Your task to perform on an android device: Do I have any events today? Image 0: 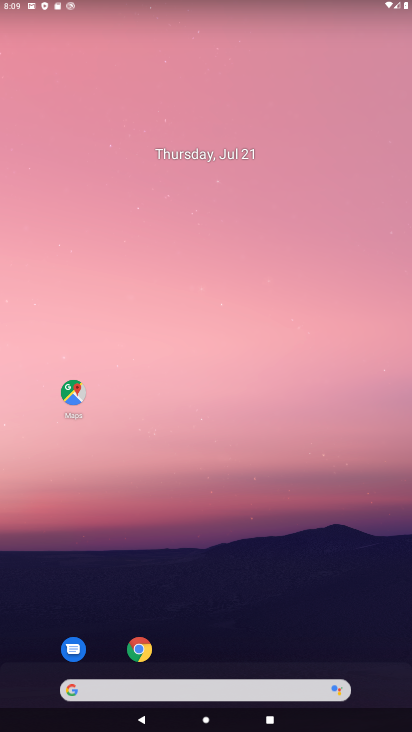
Step 0: click (182, 157)
Your task to perform on an android device: Do I have any events today? Image 1: 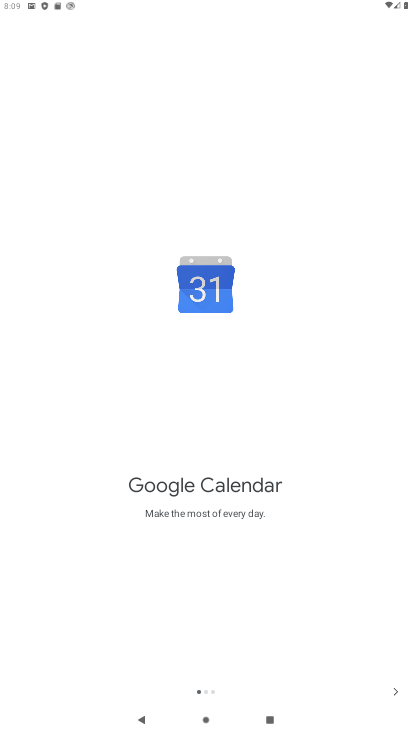
Step 1: click (394, 690)
Your task to perform on an android device: Do I have any events today? Image 2: 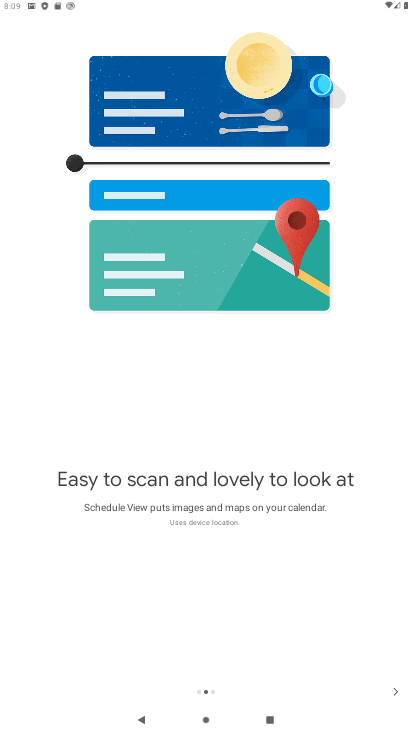
Step 2: click (394, 690)
Your task to perform on an android device: Do I have any events today? Image 3: 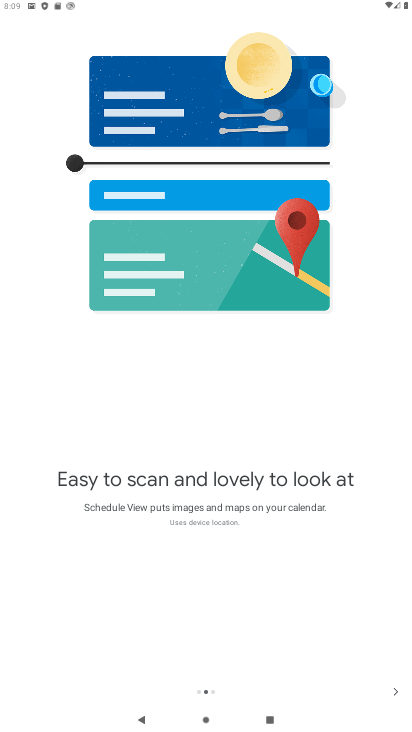
Step 3: click (394, 690)
Your task to perform on an android device: Do I have any events today? Image 4: 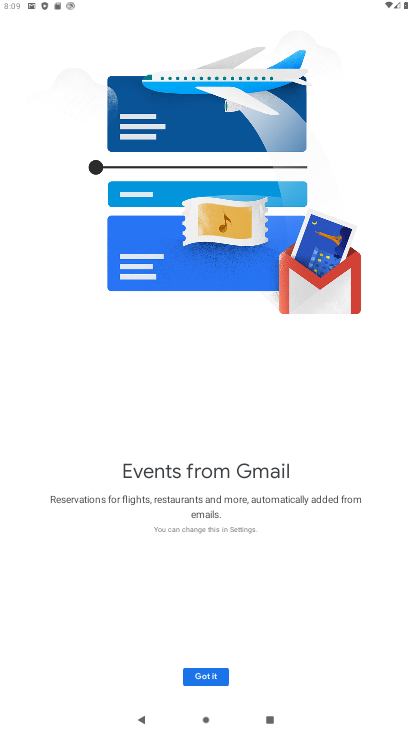
Step 4: click (189, 681)
Your task to perform on an android device: Do I have any events today? Image 5: 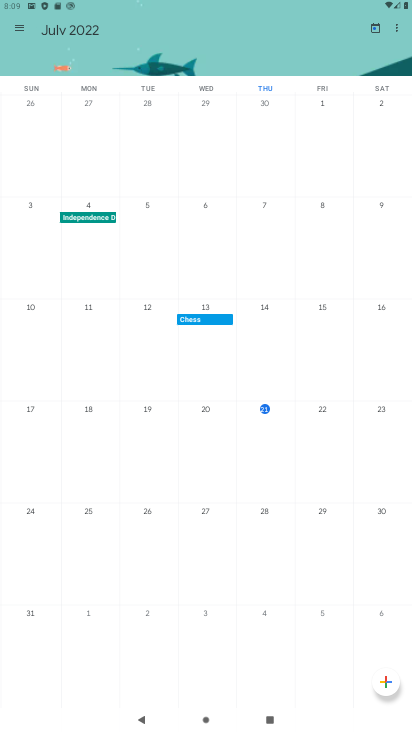
Step 5: click (11, 26)
Your task to perform on an android device: Do I have any events today? Image 6: 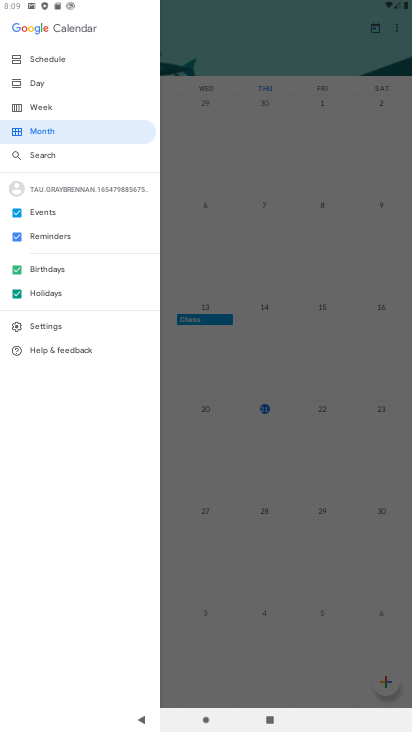
Step 6: click (14, 240)
Your task to perform on an android device: Do I have any events today? Image 7: 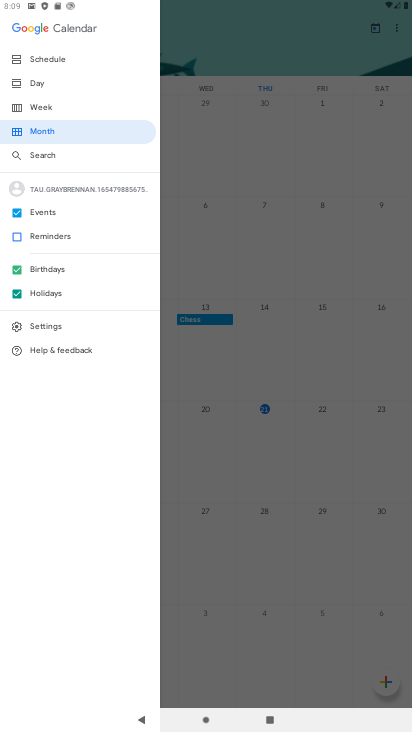
Step 7: click (14, 268)
Your task to perform on an android device: Do I have any events today? Image 8: 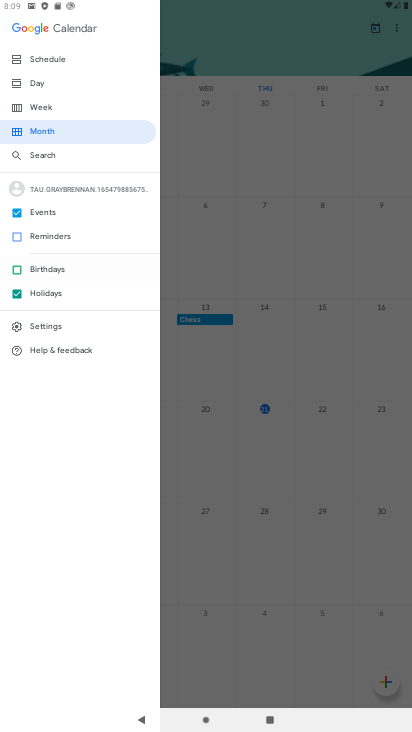
Step 8: click (17, 297)
Your task to perform on an android device: Do I have any events today? Image 9: 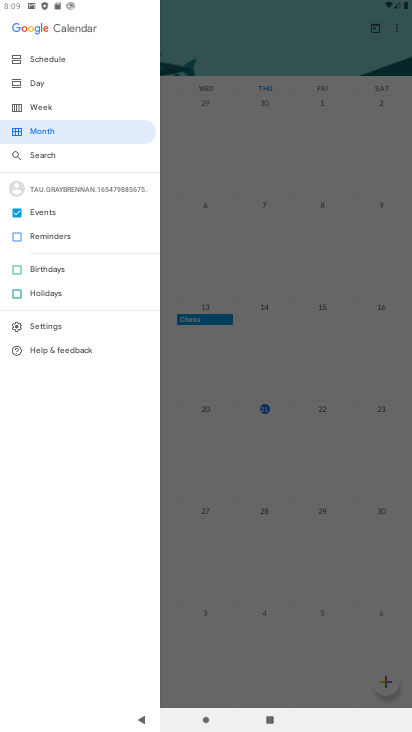
Step 9: click (41, 78)
Your task to perform on an android device: Do I have any events today? Image 10: 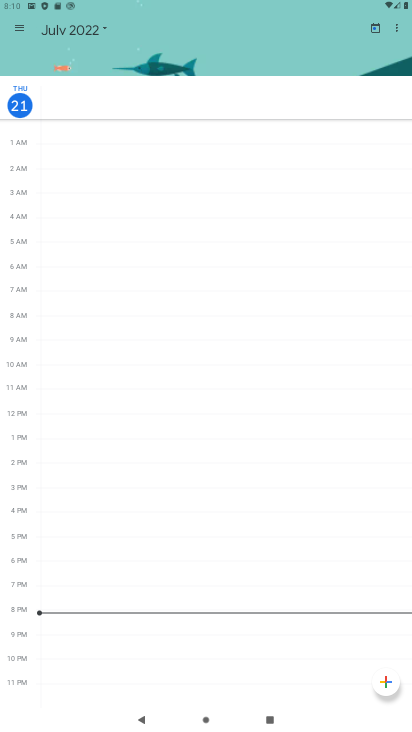
Step 10: task complete